Your task to perform on an android device: Open Google Chrome and click the shortcut for Amazon.com Image 0: 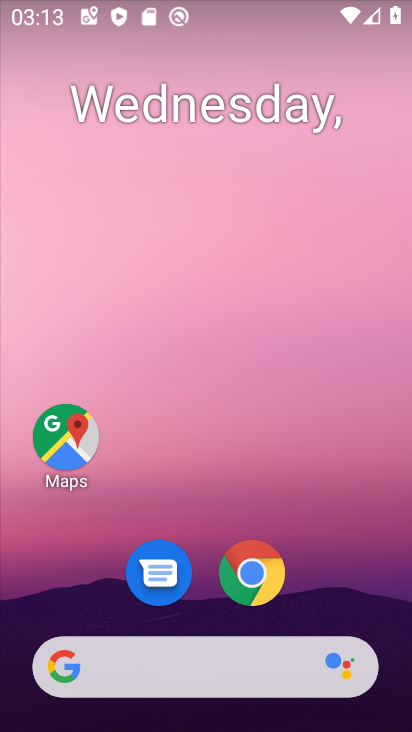
Step 0: click (251, 574)
Your task to perform on an android device: Open Google Chrome and click the shortcut for Amazon.com Image 1: 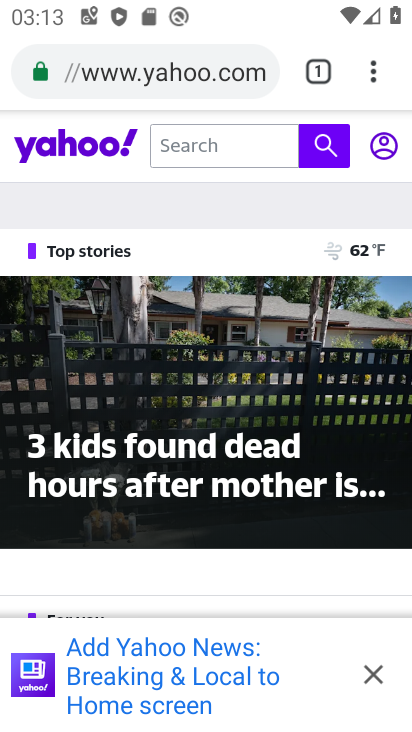
Step 1: click (233, 81)
Your task to perform on an android device: Open Google Chrome and click the shortcut for Amazon.com Image 2: 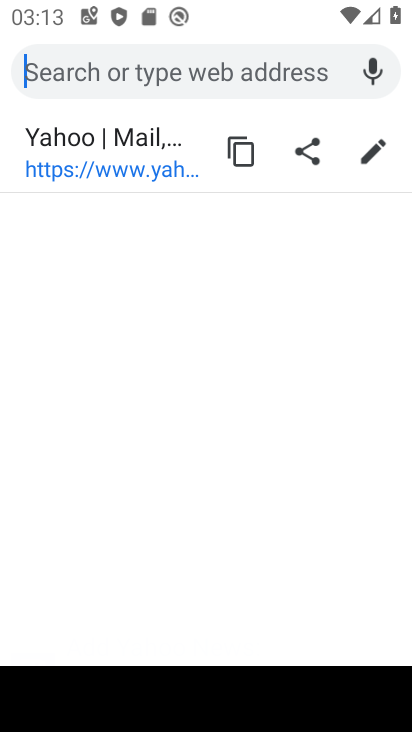
Step 2: type "Amazon.com"
Your task to perform on an android device: Open Google Chrome and click the shortcut for Amazon.com Image 3: 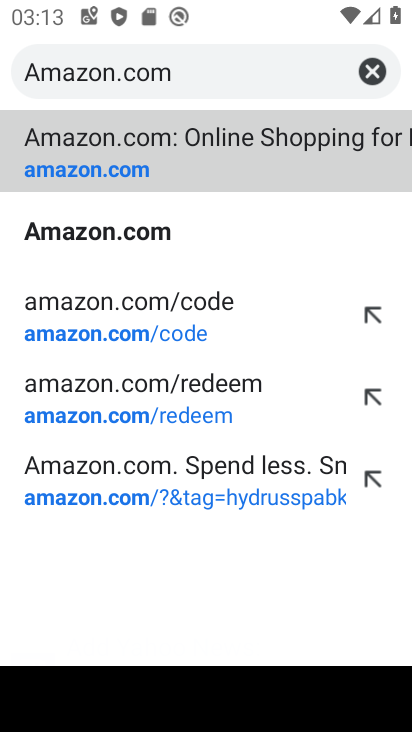
Step 3: click (99, 232)
Your task to perform on an android device: Open Google Chrome and click the shortcut for Amazon.com Image 4: 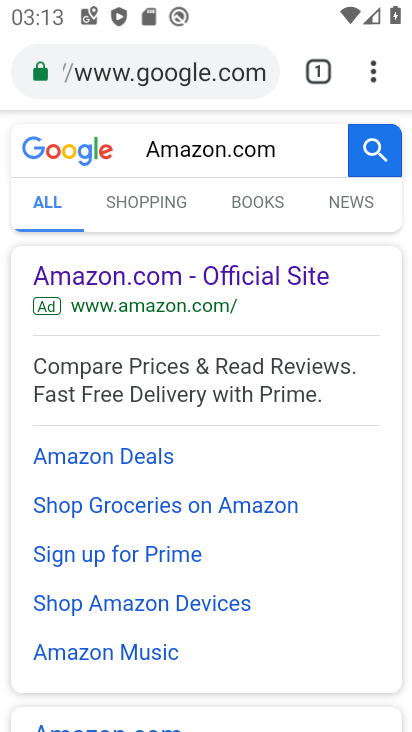
Step 4: click (104, 276)
Your task to perform on an android device: Open Google Chrome and click the shortcut for Amazon.com Image 5: 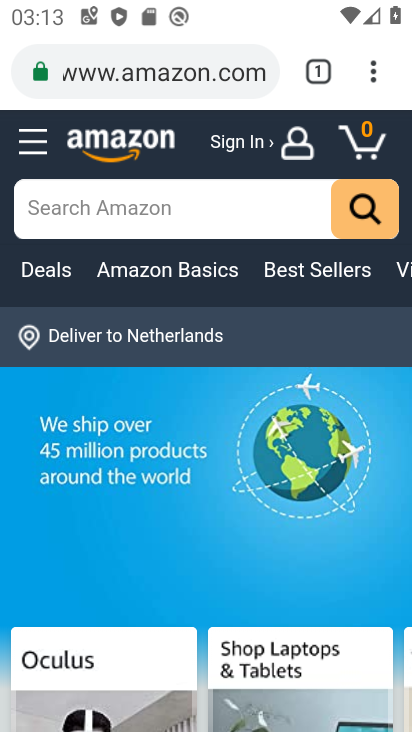
Step 5: click (375, 73)
Your task to perform on an android device: Open Google Chrome and click the shortcut for Amazon.com Image 6: 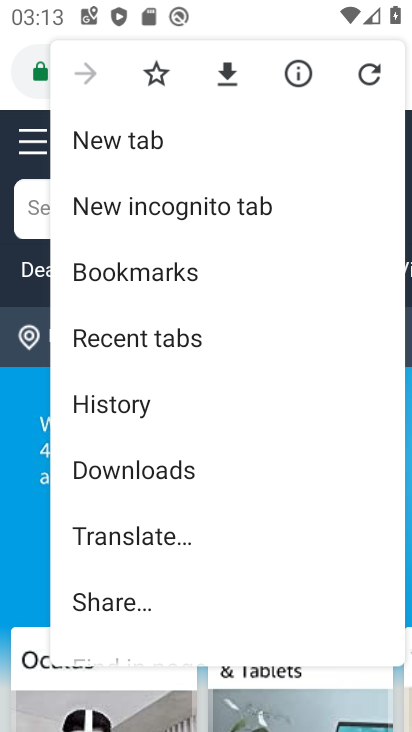
Step 6: drag from (228, 496) to (277, 303)
Your task to perform on an android device: Open Google Chrome and click the shortcut for Amazon.com Image 7: 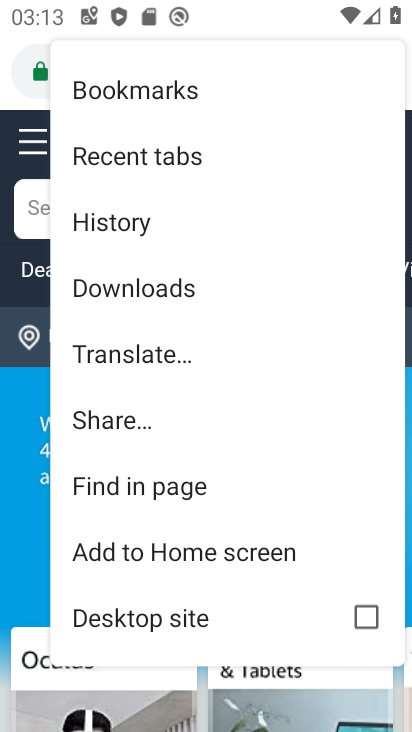
Step 7: click (169, 548)
Your task to perform on an android device: Open Google Chrome and click the shortcut for Amazon.com Image 8: 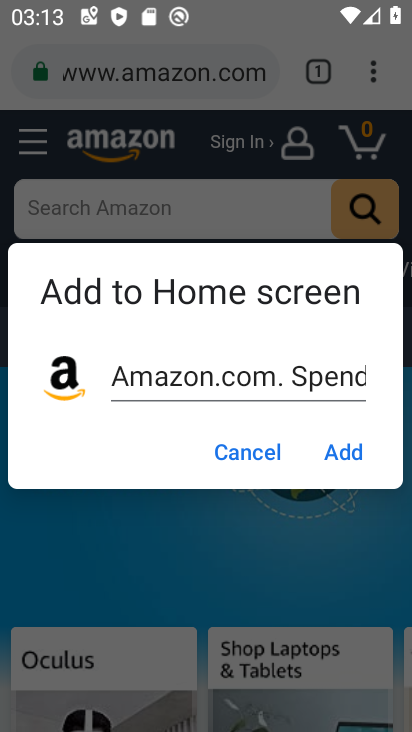
Step 8: click (346, 450)
Your task to perform on an android device: Open Google Chrome and click the shortcut for Amazon.com Image 9: 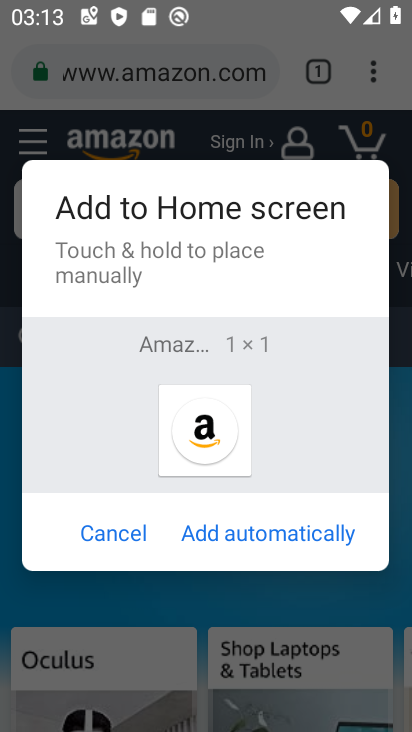
Step 9: click (127, 531)
Your task to perform on an android device: Open Google Chrome and click the shortcut for Amazon.com Image 10: 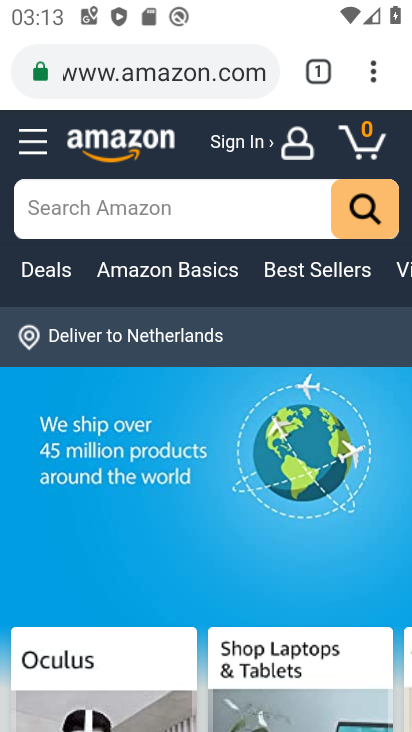
Step 10: task complete